Your task to perform on an android device: Open calendar and show me the first week of next month Image 0: 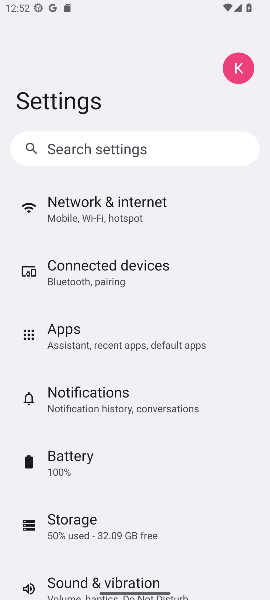
Step 0: press home button
Your task to perform on an android device: Open calendar and show me the first week of next month Image 1: 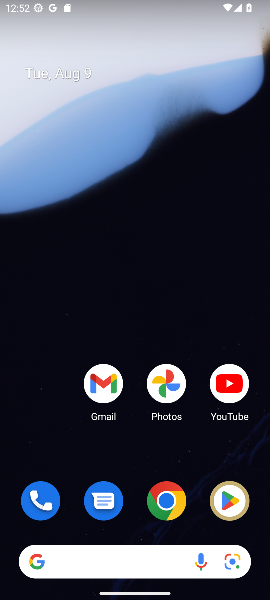
Step 1: drag from (173, 444) to (162, 91)
Your task to perform on an android device: Open calendar and show me the first week of next month Image 2: 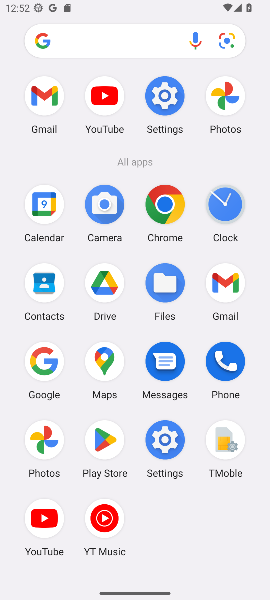
Step 2: click (35, 209)
Your task to perform on an android device: Open calendar and show me the first week of next month Image 3: 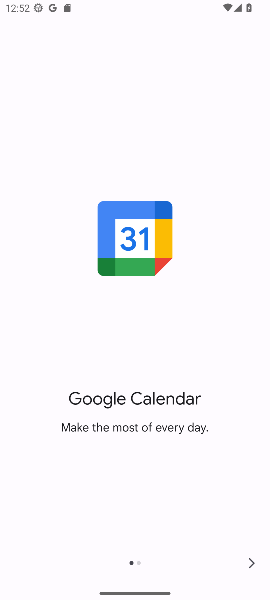
Step 3: click (249, 556)
Your task to perform on an android device: Open calendar and show me the first week of next month Image 4: 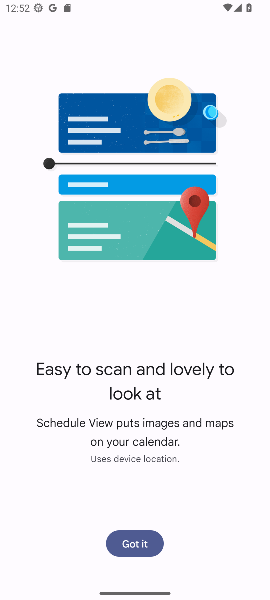
Step 4: click (135, 544)
Your task to perform on an android device: Open calendar and show me the first week of next month Image 5: 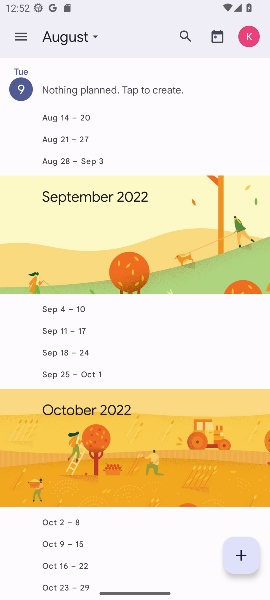
Step 5: click (74, 33)
Your task to perform on an android device: Open calendar and show me the first week of next month Image 6: 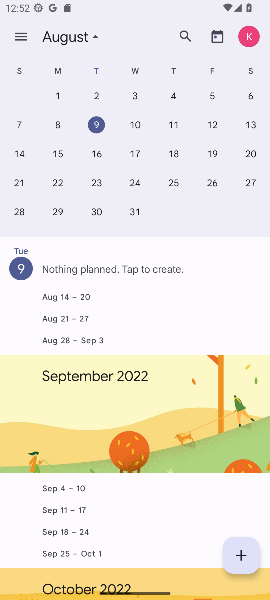
Step 6: drag from (265, 135) to (41, 118)
Your task to perform on an android device: Open calendar and show me the first week of next month Image 7: 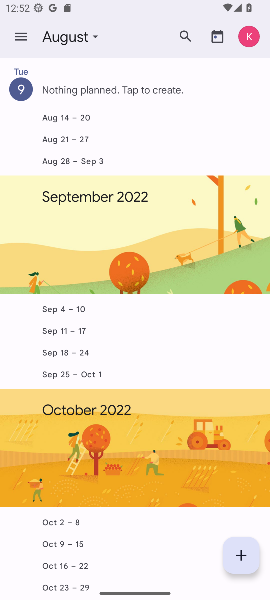
Step 7: click (70, 35)
Your task to perform on an android device: Open calendar and show me the first week of next month Image 8: 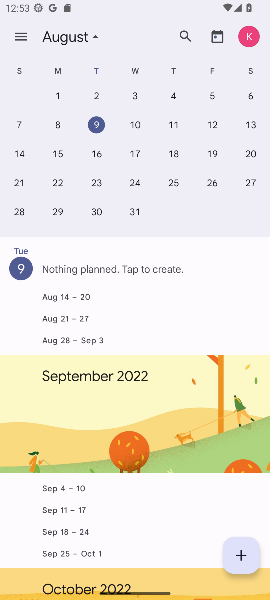
Step 8: task complete